Your task to perform on an android device: Show me the alarms in the clock app Image 0: 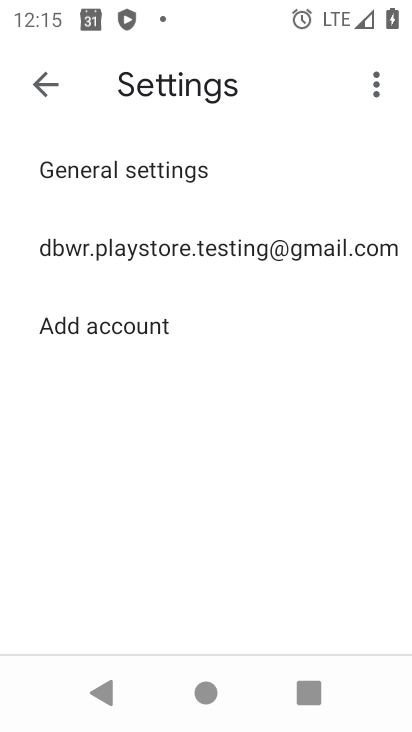
Step 0: press back button
Your task to perform on an android device: Show me the alarms in the clock app Image 1: 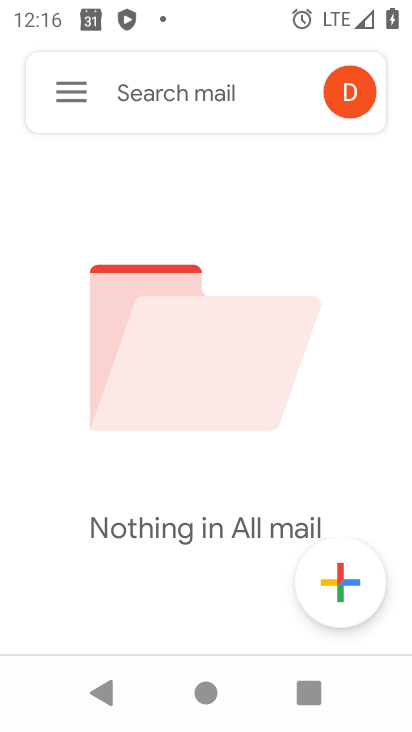
Step 1: press back button
Your task to perform on an android device: Show me the alarms in the clock app Image 2: 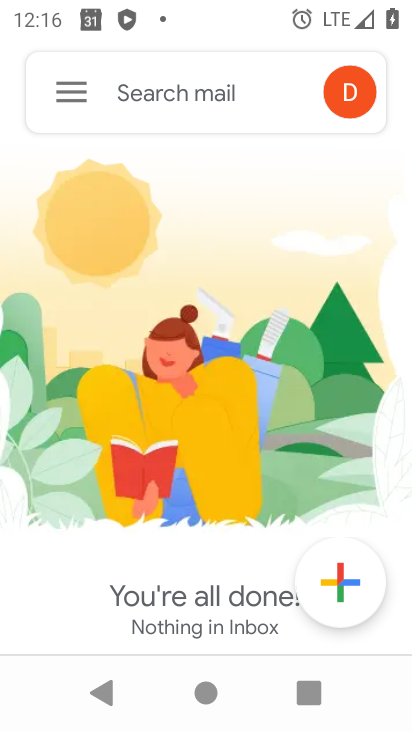
Step 2: press back button
Your task to perform on an android device: Show me the alarms in the clock app Image 3: 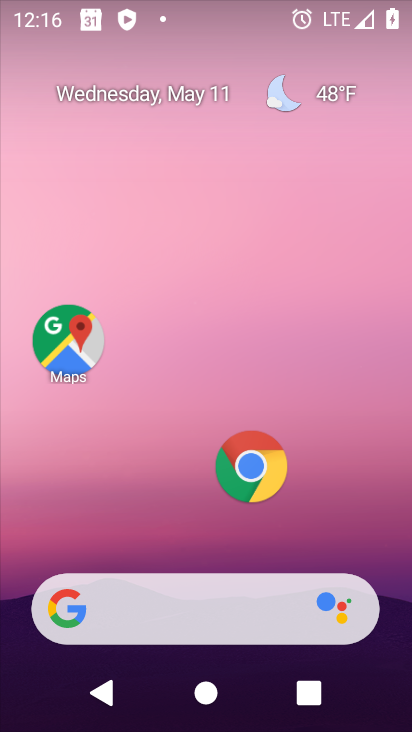
Step 3: drag from (187, 451) to (272, 56)
Your task to perform on an android device: Show me the alarms in the clock app Image 4: 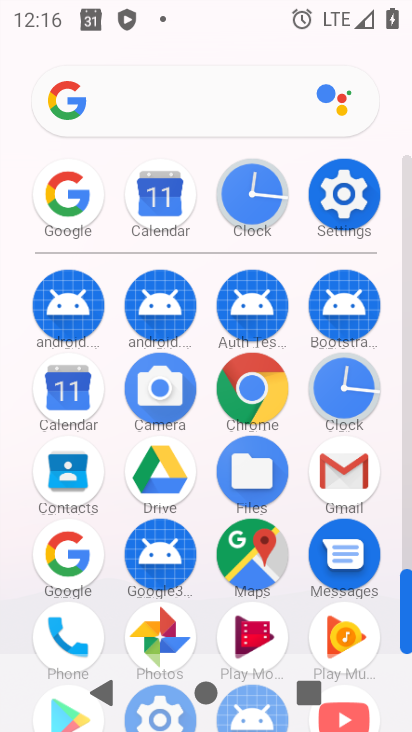
Step 4: click (364, 393)
Your task to perform on an android device: Show me the alarms in the clock app Image 5: 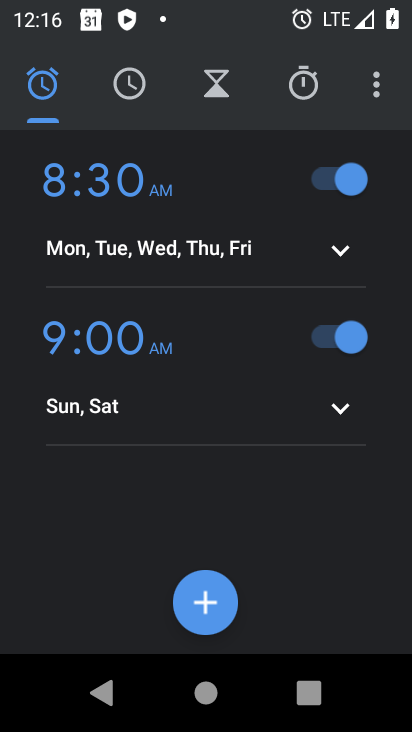
Step 5: task complete